Your task to perform on an android device: empty trash in the gmail app Image 0: 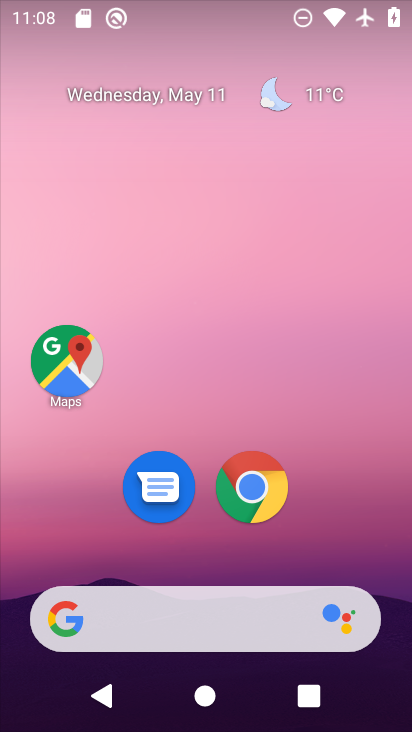
Step 0: drag from (367, 523) to (242, 30)
Your task to perform on an android device: empty trash in the gmail app Image 1: 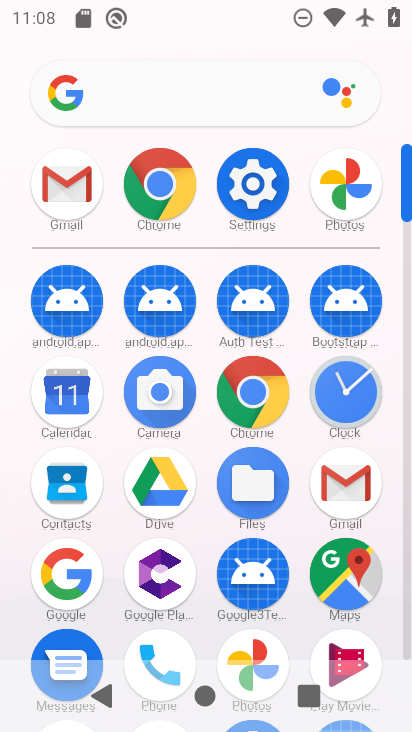
Step 1: drag from (0, 605) to (22, 322)
Your task to perform on an android device: empty trash in the gmail app Image 2: 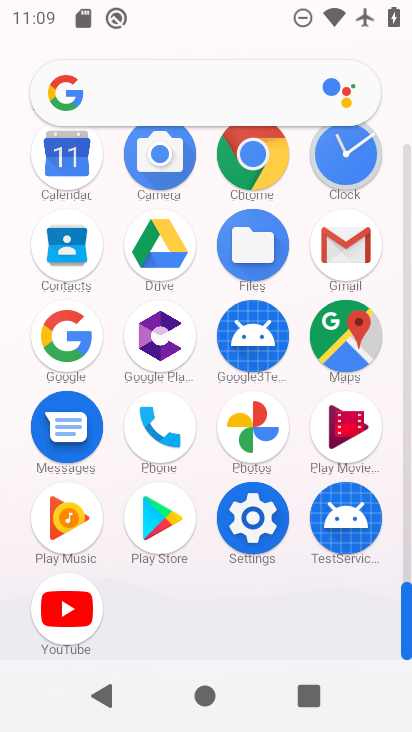
Step 2: click (345, 242)
Your task to perform on an android device: empty trash in the gmail app Image 3: 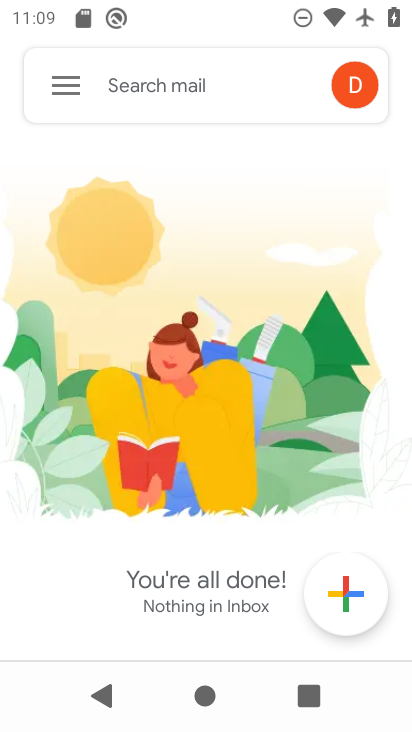
Step 3: click (68, 81)
Your task to perform on an android device: empty trash in the gmail app Image 4: 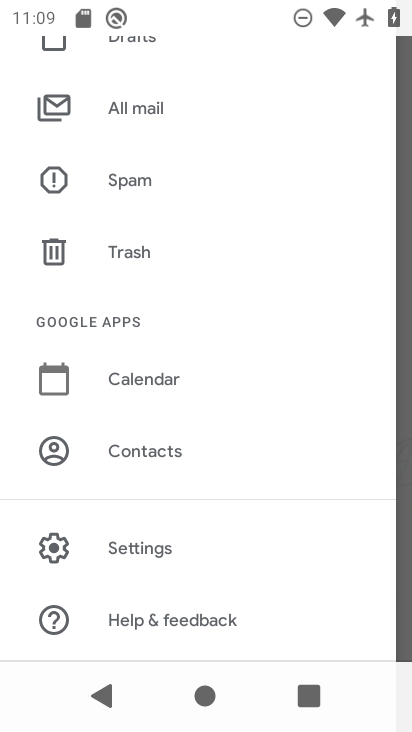
Step 4: drag from (218, 544) to (234, 156)
Your task to perform on an android device: empty trash in the gmail app Image 5: 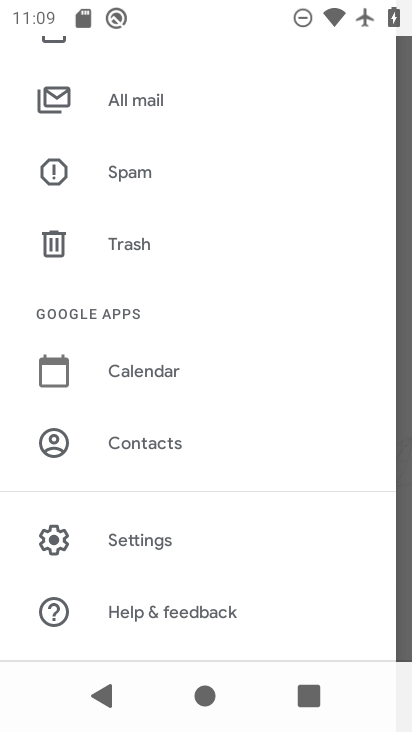
Step 5: click (161, 235)
Your task to perform on an android device: empty trash in the gmail app Image 6: 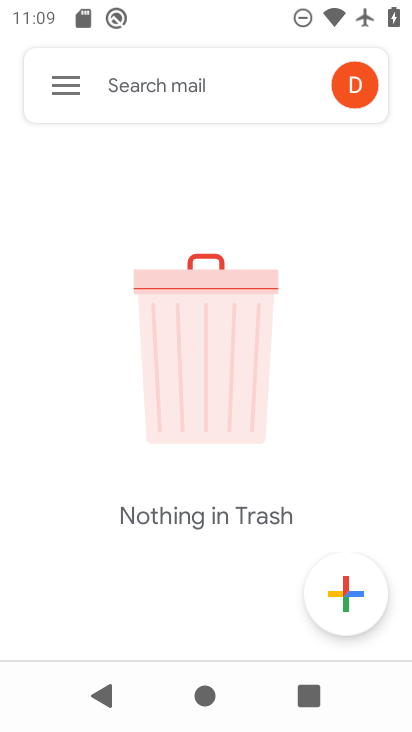
Step 6: task complete